Your task to perform on an android device: turn on javascript in the chrome app Image 0: 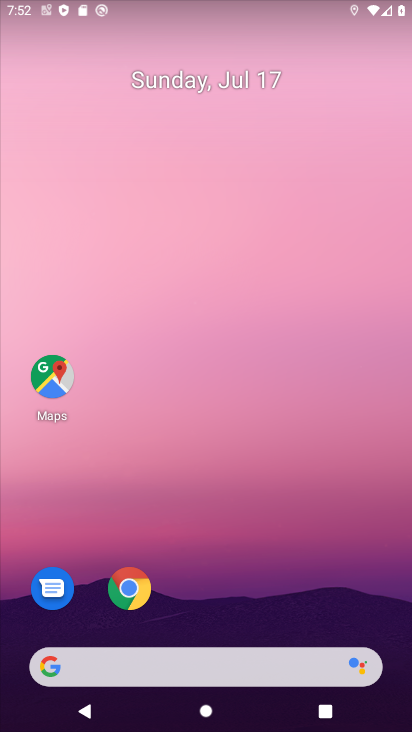
Step 0: drag from (216, 701) to (250, 188)
Your task to perform on an android device: turn on javascript in the chrome app Image 1: 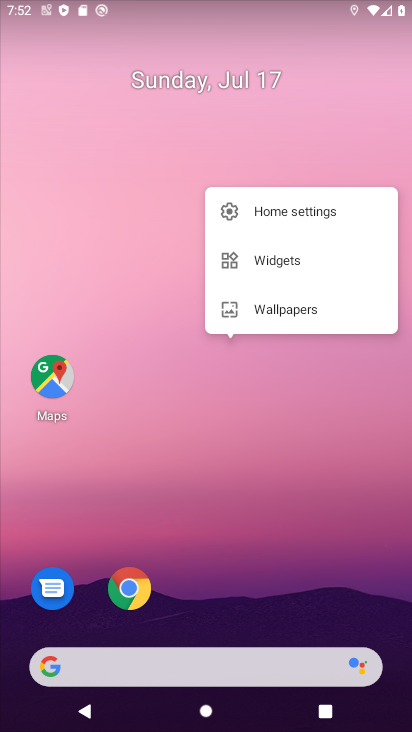
Step 1: click (304, 536)
Your task to perform on an android device: turn on javascript in the chrome app Image 2: 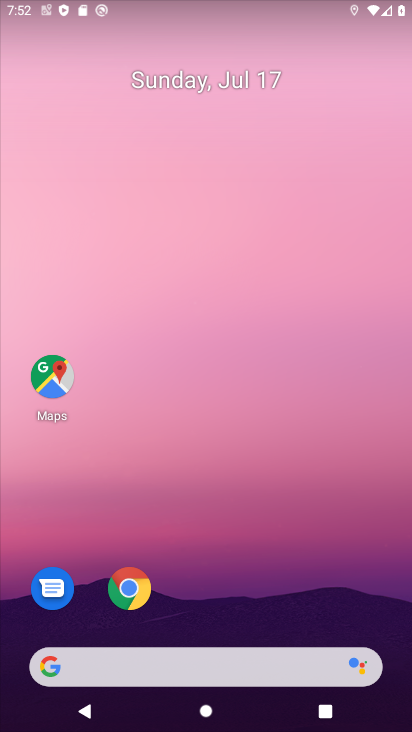
Step 2: click (326, 501)
Your task to perform on an android device: turn on javascript in the chrome app Image 3: 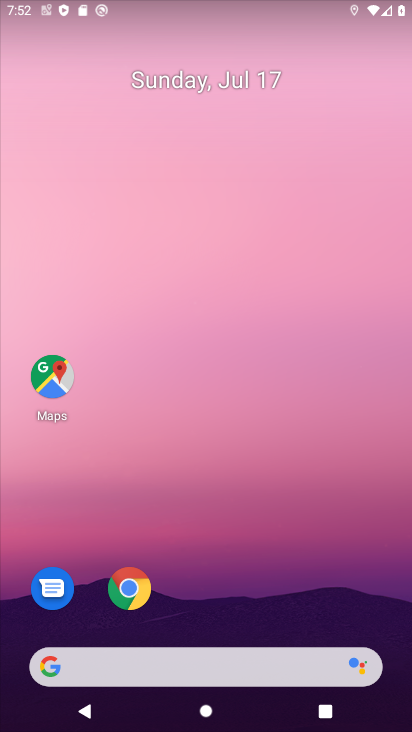
Step 3: drag from (200, 650) to (276, 152)
Your task to perform on an android device: turn on javascript in the chrome app Image 4: 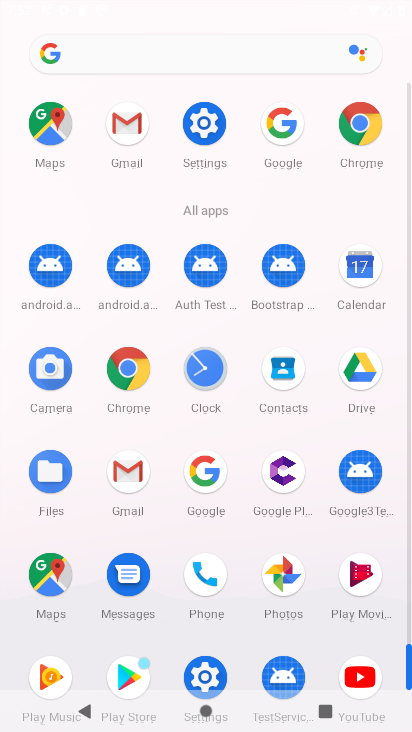
Step 4: click (357, 136)
Your task to perform on an android device: turn on javascript in the chrome app Image 5: 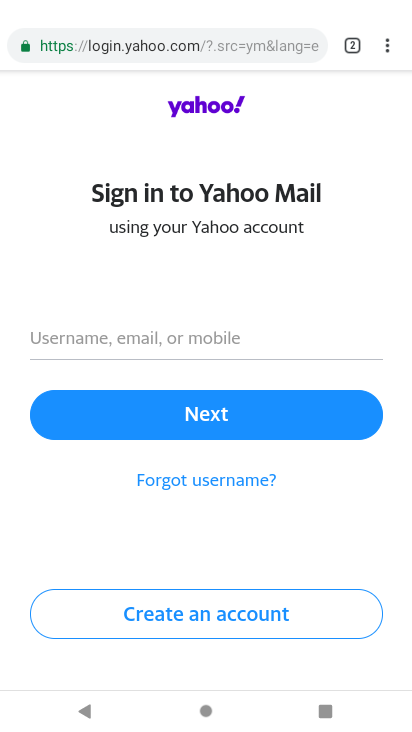
Step 5: click (390, 55)
Your task to perform on an android device: turn on javascript in the chrome app Image 6: 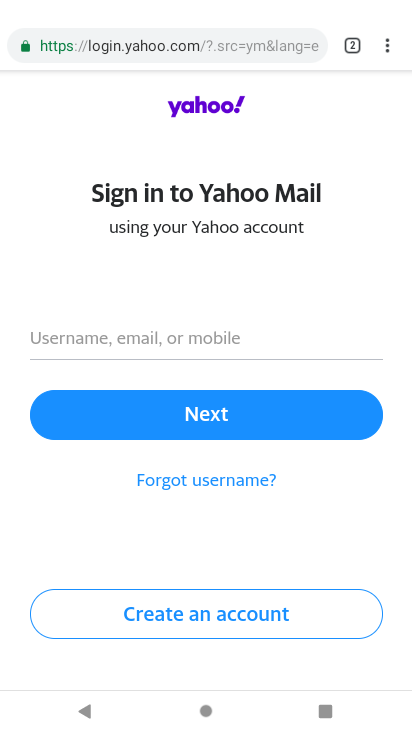
Step 6: click (390, 55)
Your task to perform on an android device: turn on javascript in the chrome app Image 7: 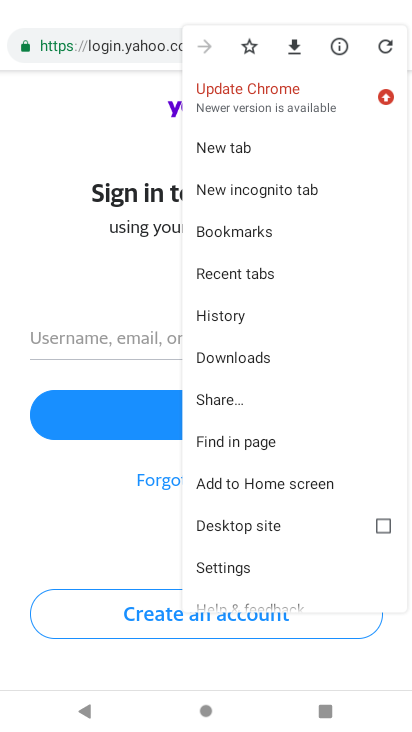
Step 7: drag from (282, 353) to (308, 97)
Your task to perform on an android device: turn on javascript in the chrome app Image 8: 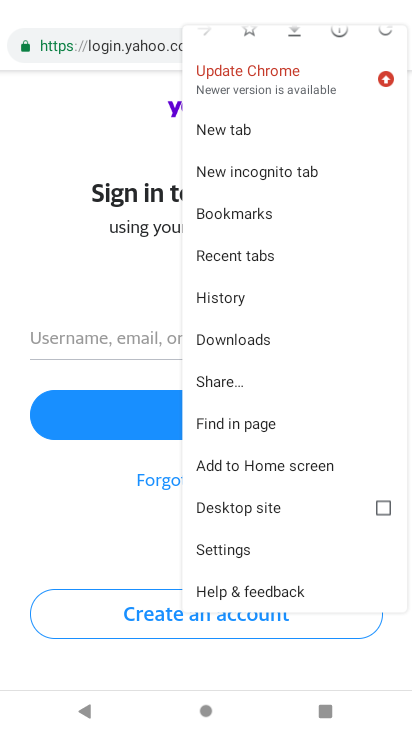
Step 8: click (223, 548)
Your task to perform on an android device: turn on javascript in the chrome app Image 9: 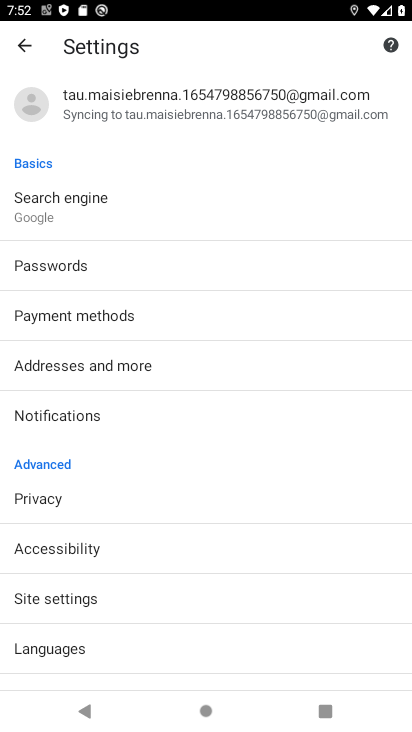
Step 9: click (75, 603)
Your task to perform on an android device: turn on javascript in the chrome app Image 10: 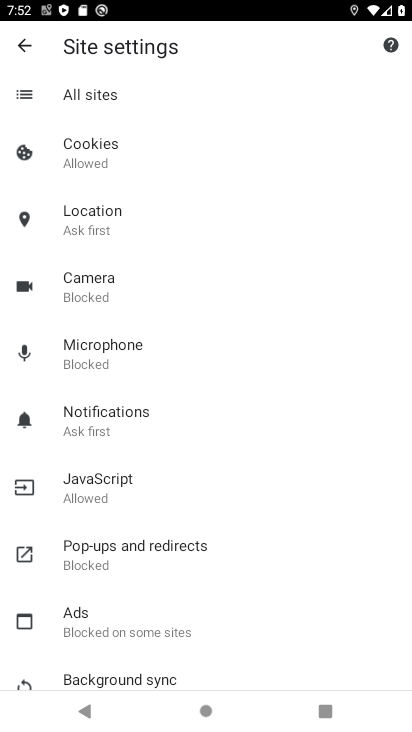
Step 10: click (117, 490)
Your task to perform on an android device: turn on javascript in the chrome app Image 11: 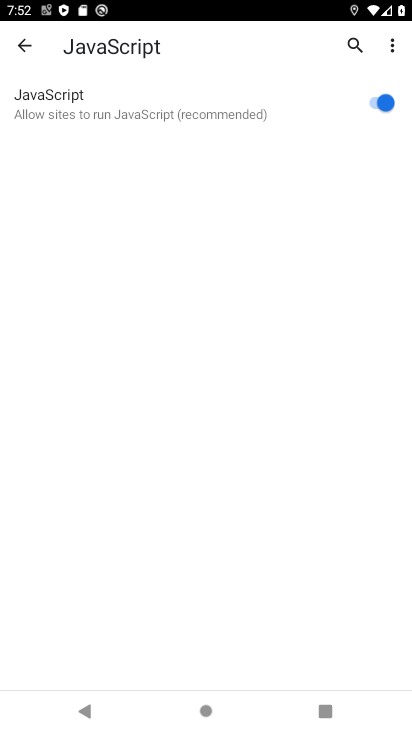
Step 11: task complete